Your task to perform on an android device: Go to network settings Image 0: 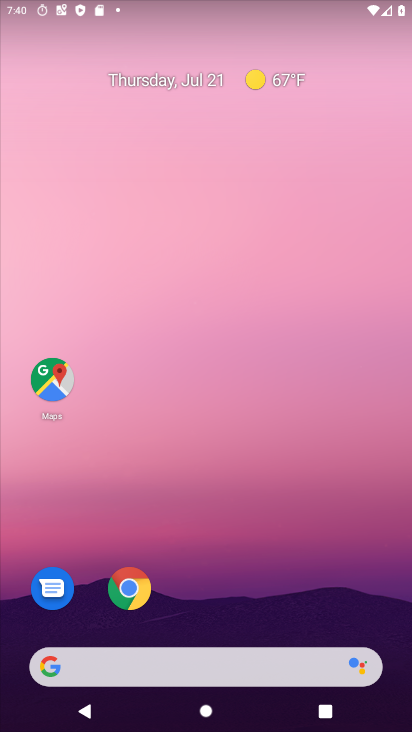
Step 0: drag from (189, 645) to (293, 243)
Your task to perform on an android device: Go to network settings Image 1: 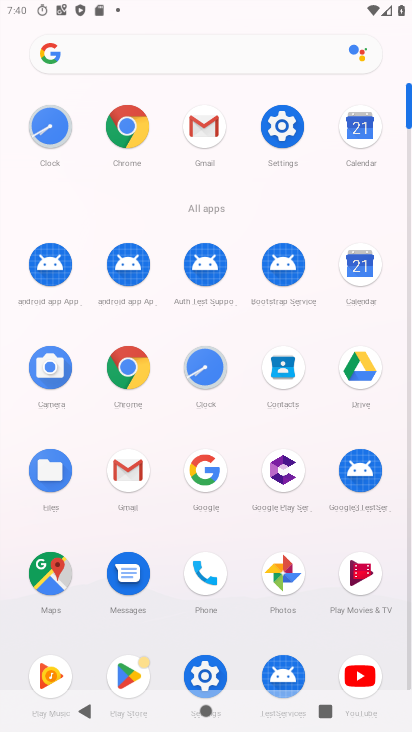
Step 1: click (284, 140)
Your task to perform on an android device: Go to network settings Image 2: 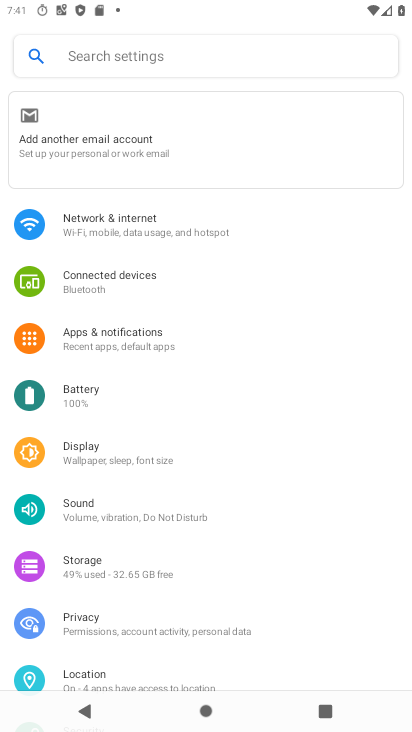
Step 2: click (122, 228)
Your task to perform on an android device: Go to network settings Image 3: 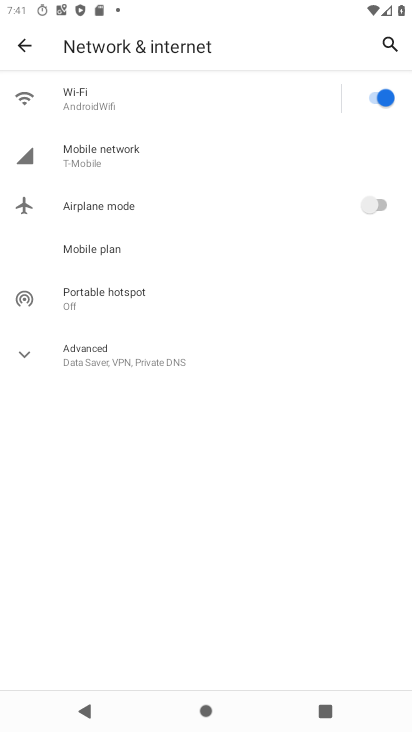
Step 3: click (121, 370)
Your task to perform on an android device: Go to network settings Image 4: 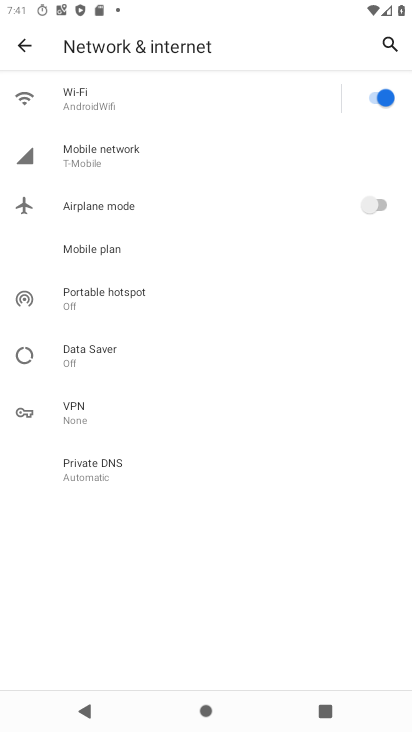
Step 4: click (139, 163)
Your task to perform on an android device: Go to network settings Image 5: 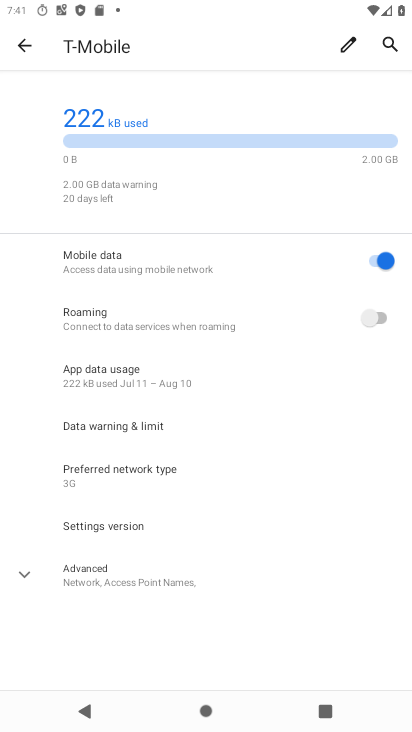
Step 5: click (98, 577)
Your task to perform on an android device: Go to network settings Image 6: 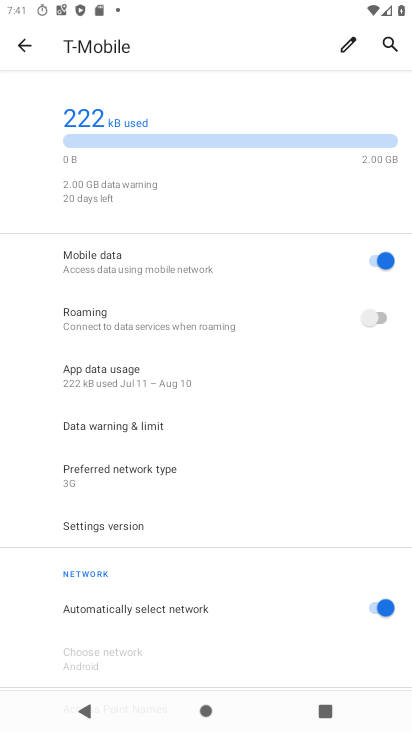
Step 6: task complete